Your task to perform on an android device: What's the weather going to be tomorrow? Image 0: 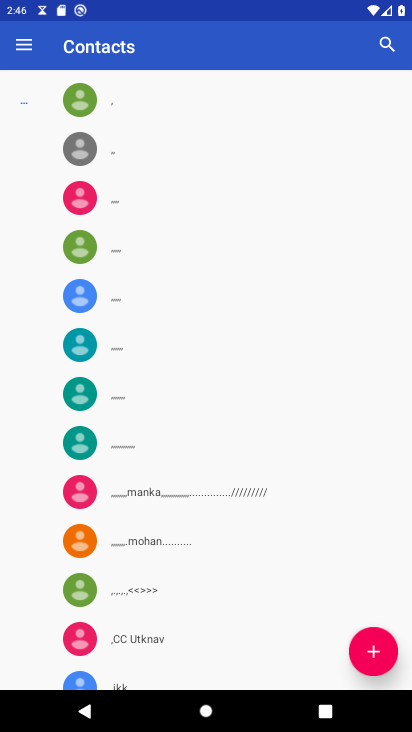
Step 0: press home button
Your task to perform on an android device: What's the weather going to be tomorrow? Image 1: 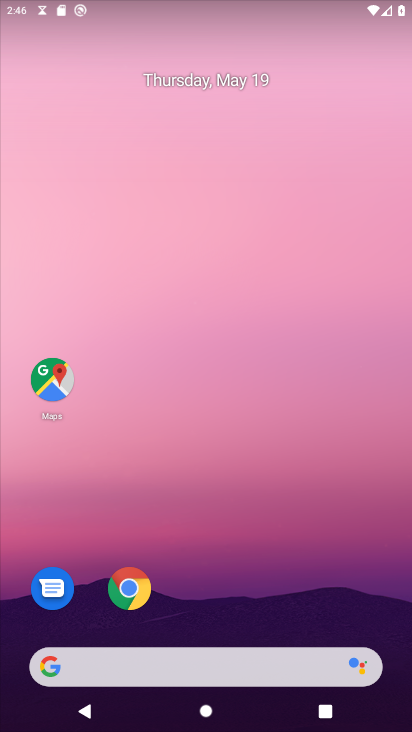
Step 1: click (124, 578)
Your task to perform on an android device: What's the weather going to be tomorrow? Image 2: 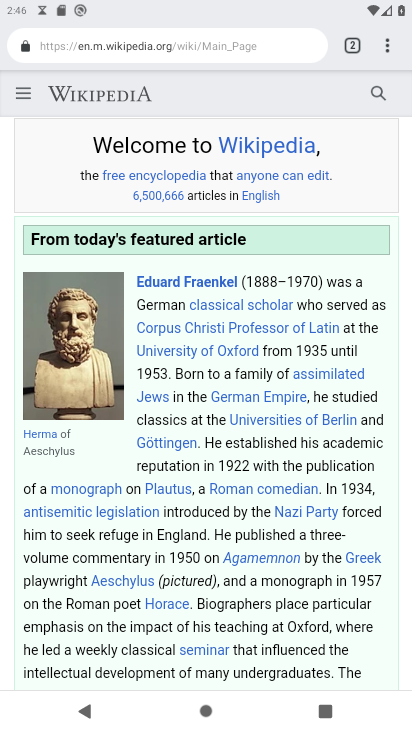
Step 2: click (385, 48)
Your task to perform on an android device: What's the weather going to be tomorrow? Image 3: 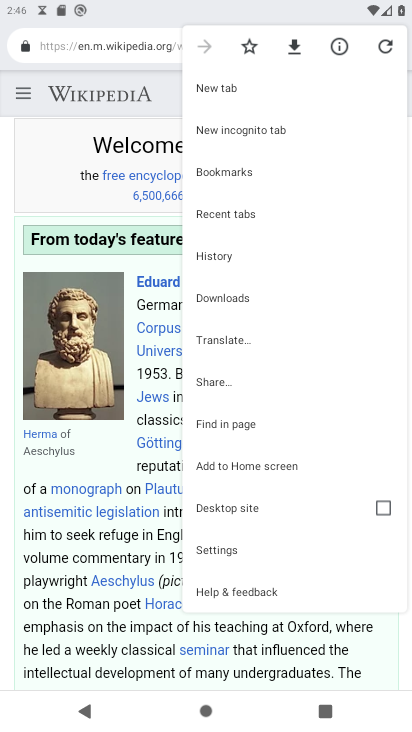
Step 3: click (229, 87)
Your task to perform on an android device: What's the weather going to be tomorrow? Image 4: 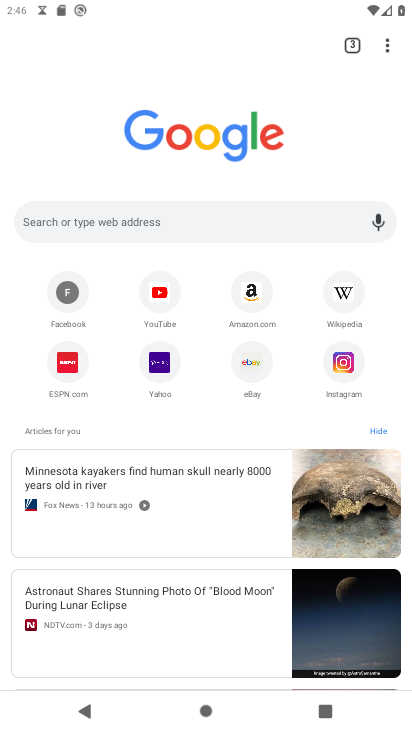
Step 4: click (147, 228)
Your task to perform on an android device: What's the weather going to be tomorrow? Image 5: 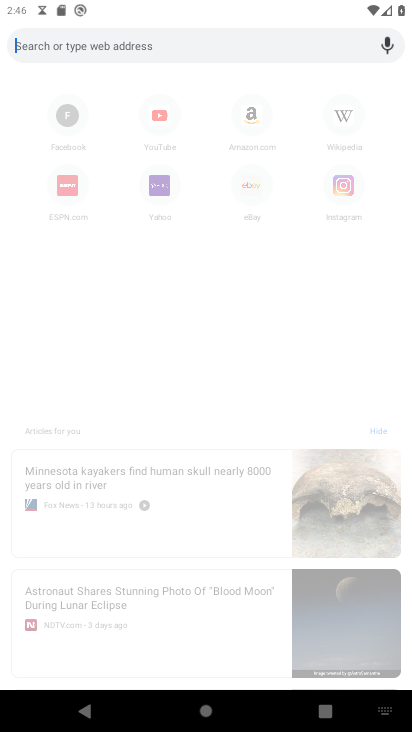
Step 5: type "weather"
Your task to perform on an android device: What's the weather going to be tomorrow? Image 6: 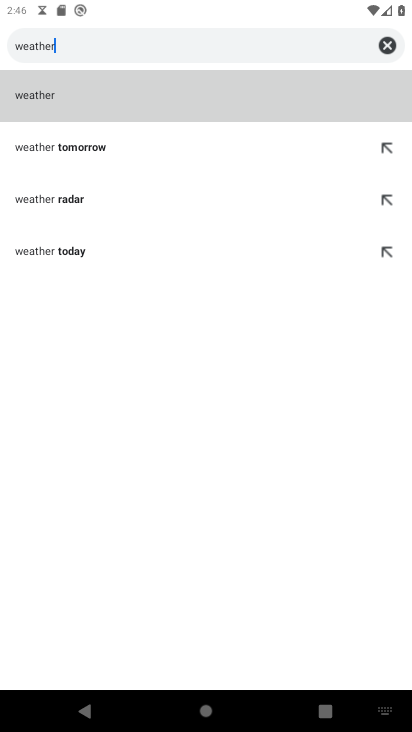
Step 6: click (112, 150)
Your task to perform on an android device: What's the weather going to be tomorrow? Image 7: 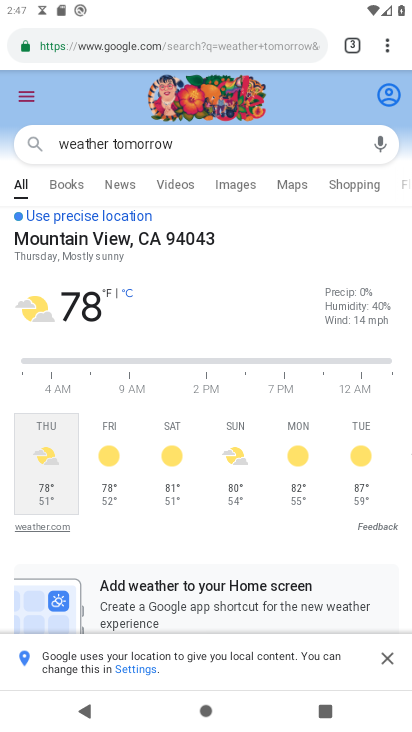
Step 7: task complete